Your task to perform on an android device: toggle priority inbox in the gmail app Image 0: 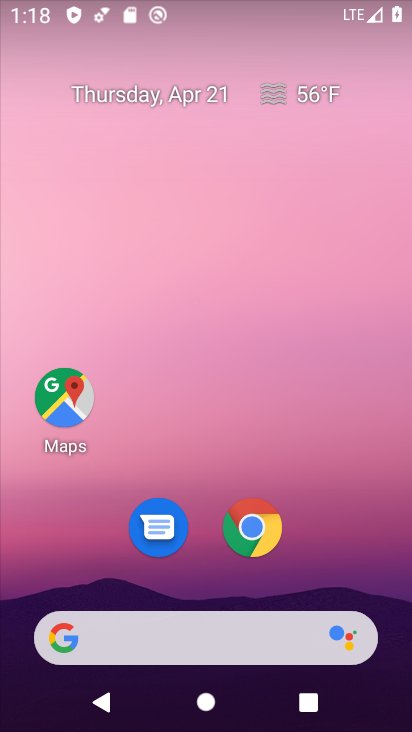
Step 0: drag from (193, 457) to (258, 53)
Your task to perform on an android device: toggle priority inbox in the gmail app Image 1: 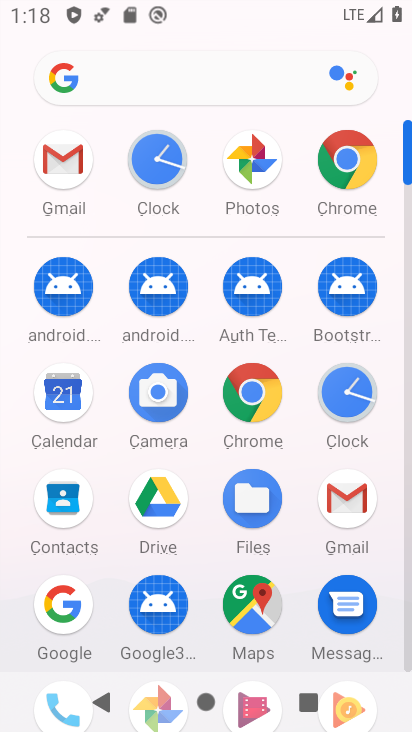
Step 1: click (82, 173)
Your task to perform on an android device: toggle priority inbox in the gmail app Image 2: 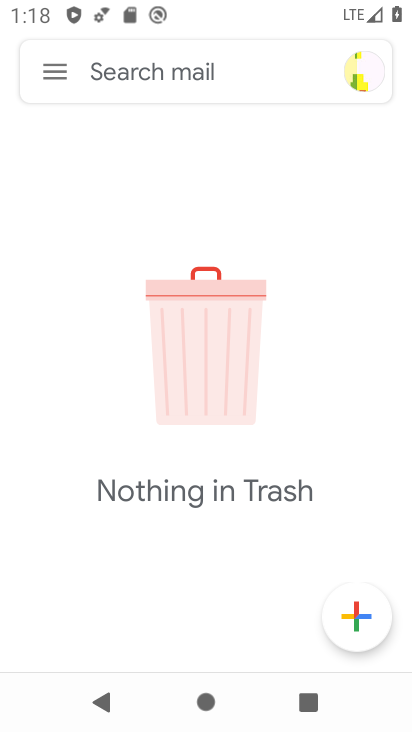
Step 2: click (55, 74)
Your task to perform on an android device: toggle priority inbox in the gmail app Image 3: 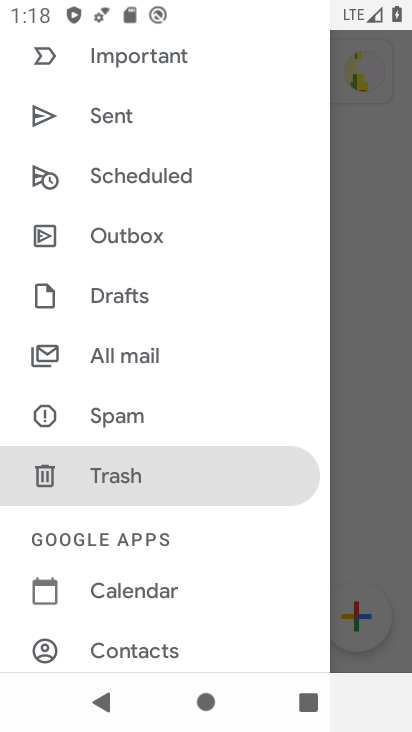
Step 3: drag from (107, 591) to (174, 279)
Your task to perform on an android device: toggle priority inbox in the gmail app Image 4: 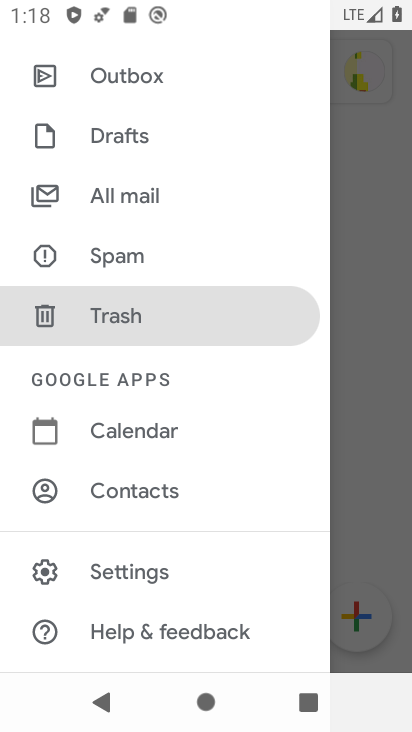
Step 4: click (105, 568)
Your task to perform on an android device: toggle priority inbox in the gmail app Image 5: 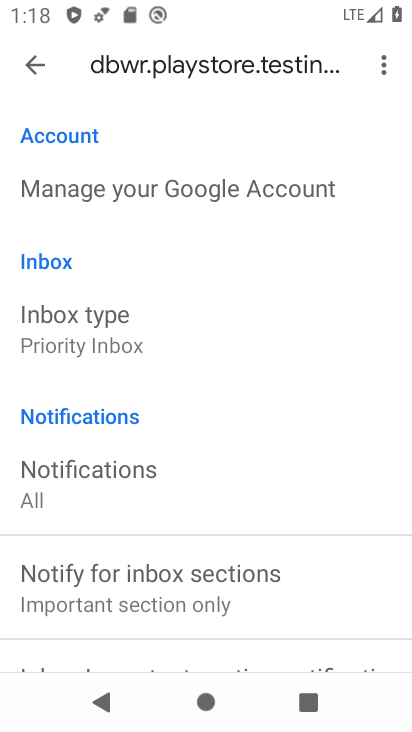
Step 5: click (107, 331)
Your task to perform on an android device: toggle priority inbox in the gmail app Image 6: 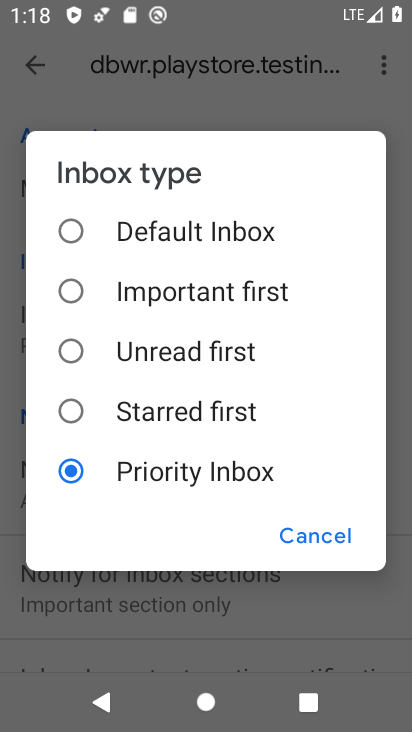
Step 6: click (74, 472)
Your task to perform on an android device: toggle priority inbox in the gmail app Image 7: 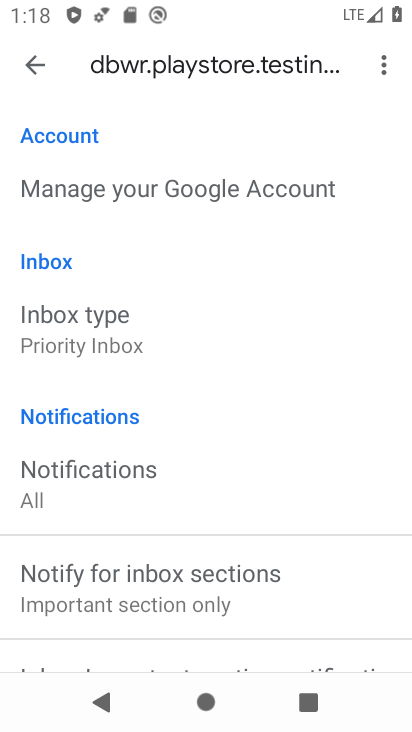
Step 7: click (105, 351)
Your task to perform on an android device: toggle priority inbox in the gmail app Image 8: 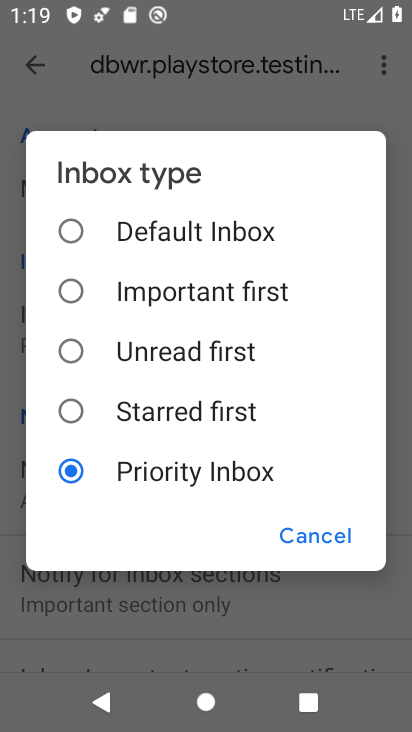
Step 8: click (68, 408)
Your task to perform on an android device: toggle priority inbox in the gmail app Image 9: 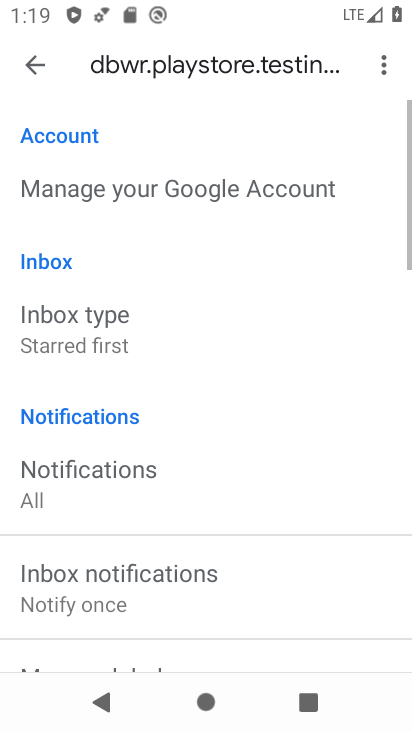
Step 9: task complete